Your task to perform on an android device: remove spam from my inbox in the gmail app Image 0: 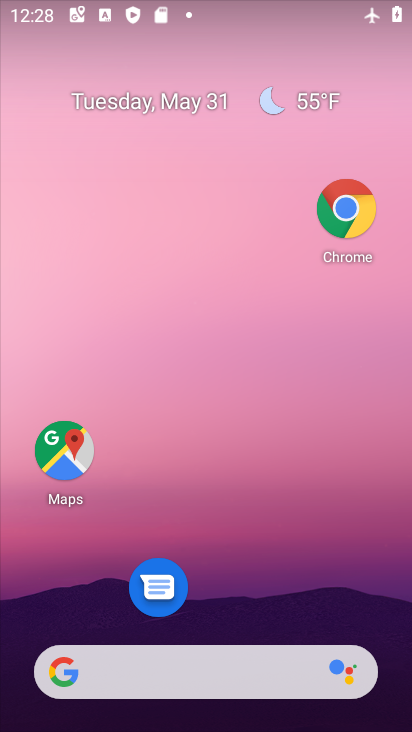
Step 0: drag from (248, 642) to (260, 113)
Your task to perform on an android device: remove spam from my inbox in the gmail app Image 1: 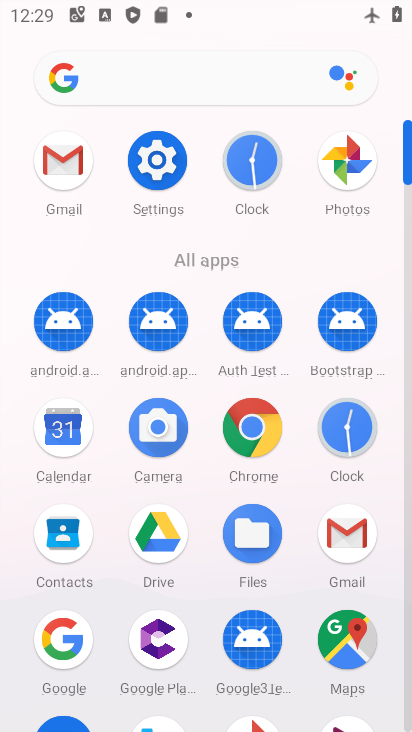
Step 1: click (67, 148)
Your task to perform on an android device: remove spam from my inbox in the gmail app Image 2: 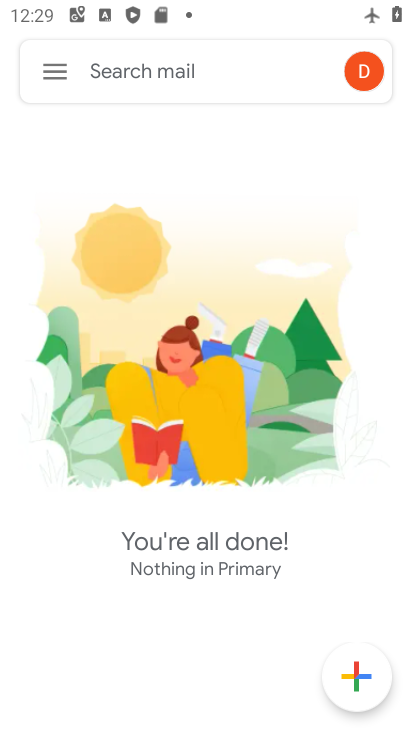
Step 2: click (55, 86)
Your task to perform on an android device: remove spam from my inbox in the gmail app Image 3: 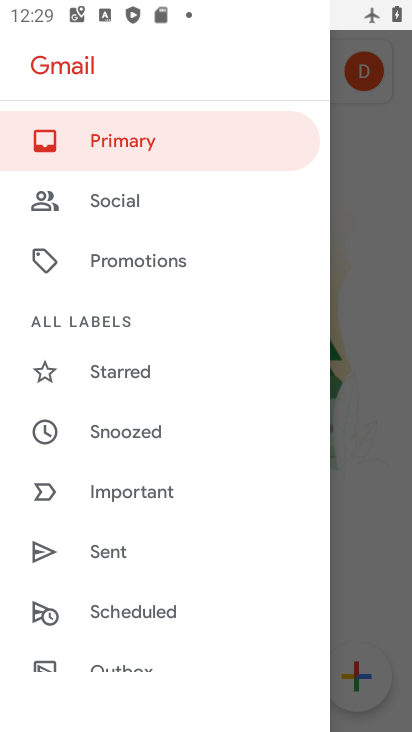
Step 3: drag from (113, 663) to (205, 158)
Your task to perform on an android device: remove spam from my inbox in the gmail app Image 4: 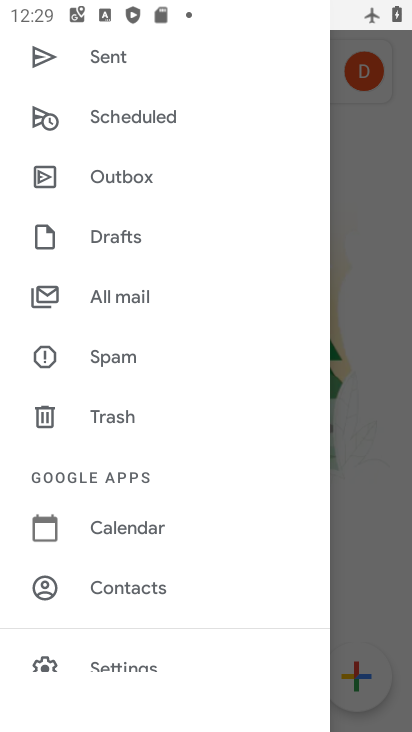
Step 4: click (121, 347)
Your task to perform on an android device: remove spam from my inbox in the gmail app Image 5: 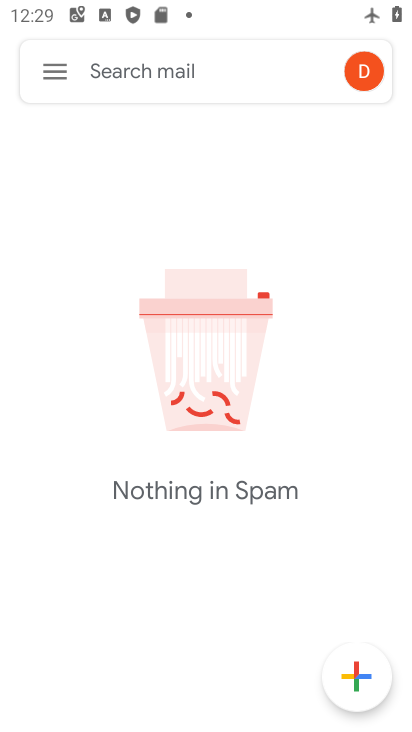
Step 5: task complete